Your task to perform on an android device: Go to display settings Image 0: 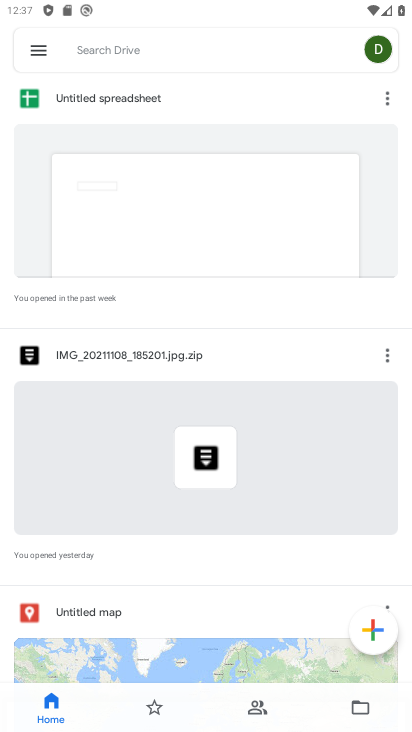
Step 0: press home button
Your task to perform on an android device: Go to display settings Image 1: 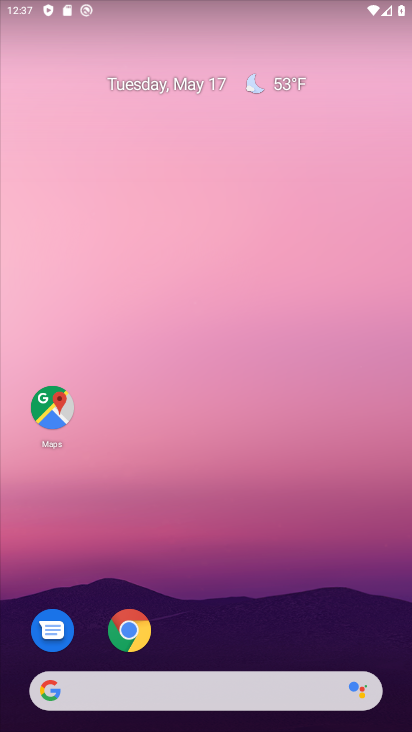
Step 1: drag from (209, 570) to (215, 235)
Your task to perform on an android device: Go to display settings Image 2: 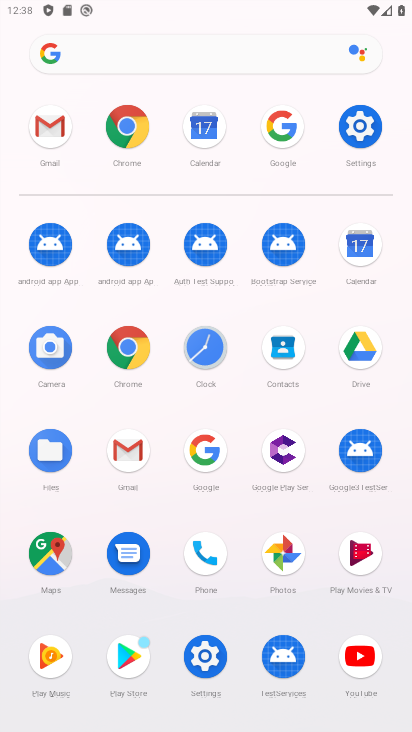
Step 2: click (366, 158)
Your task to perform on an android device: Go to display settings Image 3: 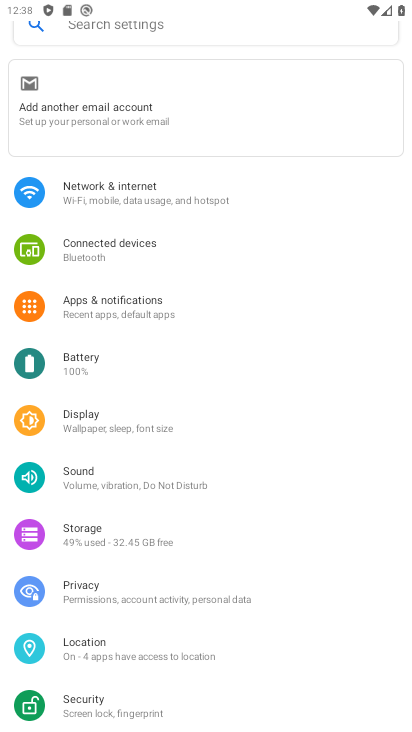
Step 3: click (113, 414)
Your task to perform on an android device: Go to display settings Image 4: 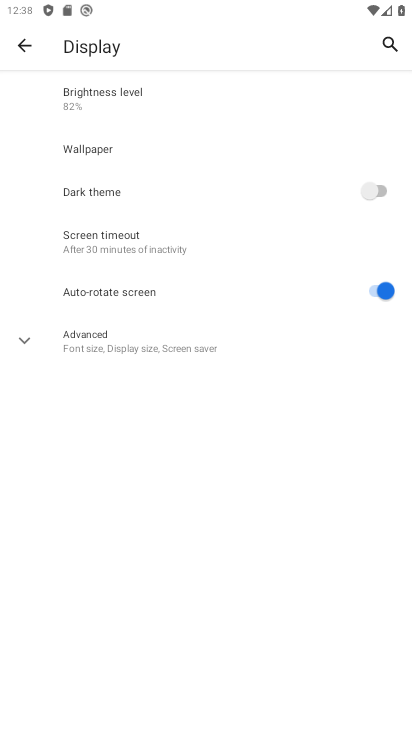
Step 4: task complete